Your task to perform on an android device: Open Chrome and go to settings Image 0: 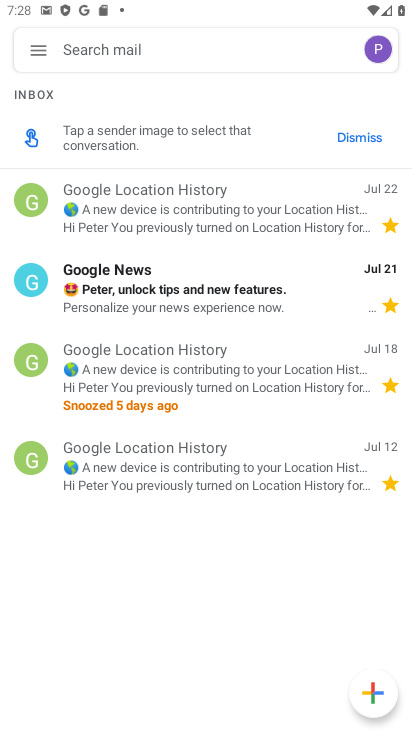
Step 0: press home button
Your task to perform on an android device: Open Chrome and go to settings Image 1: 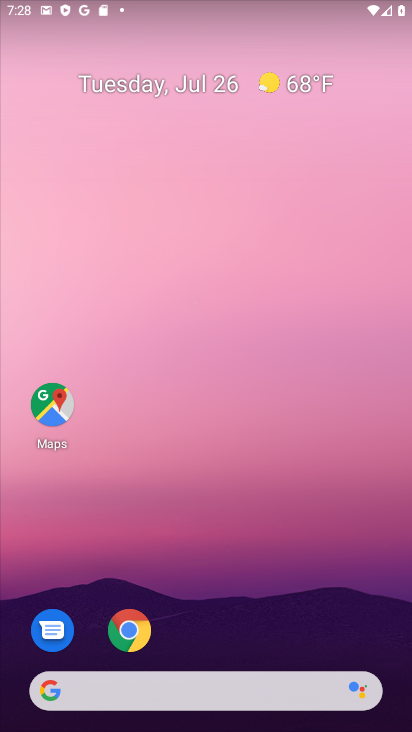
Step 1: drag from (343, 621) to (379, 144)
Your task to perform on an android device: Open Chrome and go to settings Image 2: 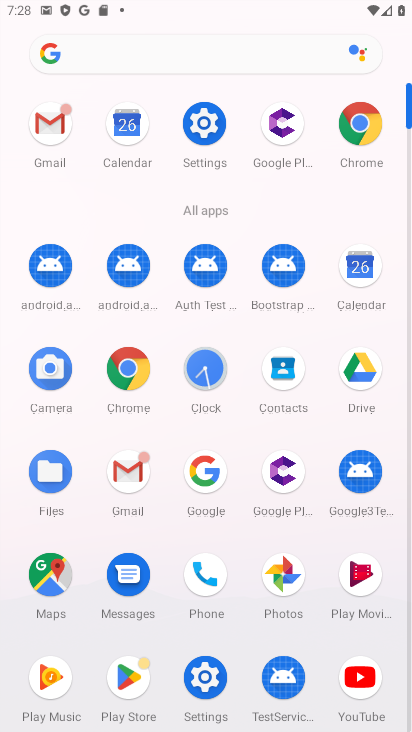
Step 2: click (131, 371)
Your task to perform on an android device: Open Chrome and go to settings Image 3: 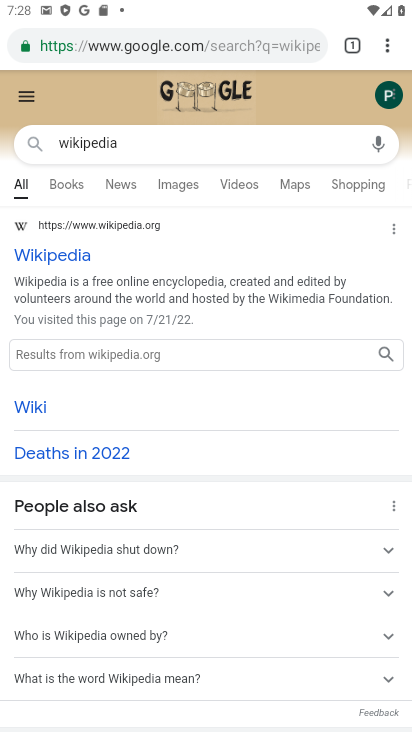
Step 3: click (385, 48)
Your task to perform on an android device: Open Chrome and go to settings Image 4: 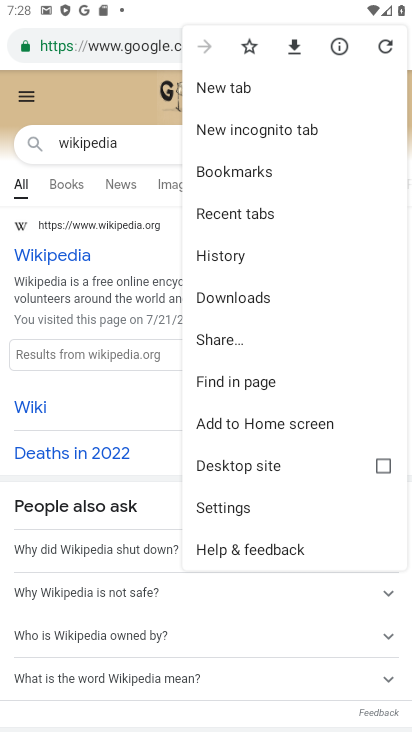
Step 4: click (242, 512)
Your task to perform on an android device: Open Chrome and go to settings Image 5: 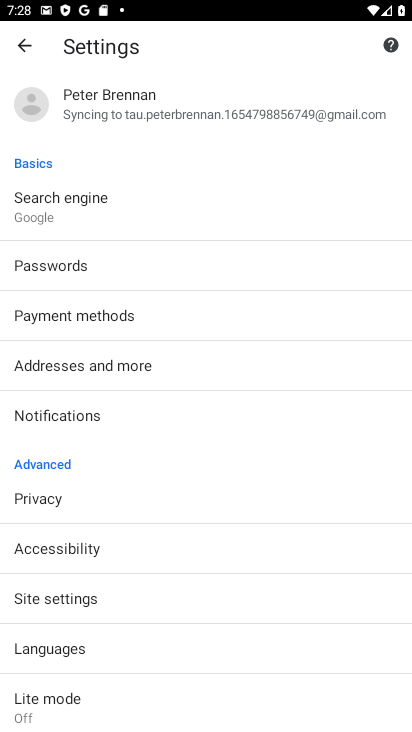
Step 5: task complete